Your task to perform on an android device: Go to display settings Image 0: 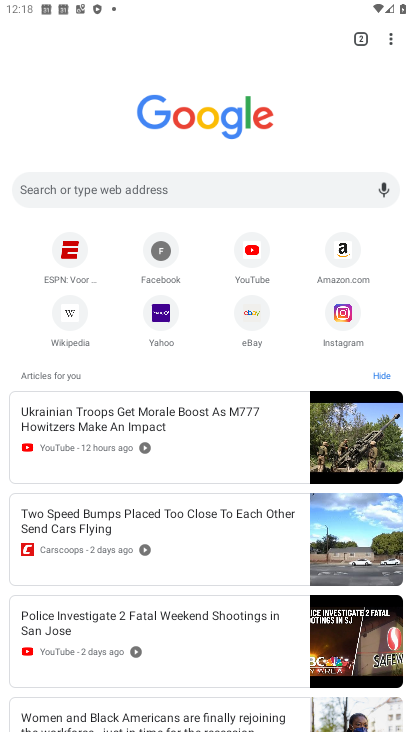
Step 0: press home button
Your task to perform on an android device: Go to display settings Image 1: 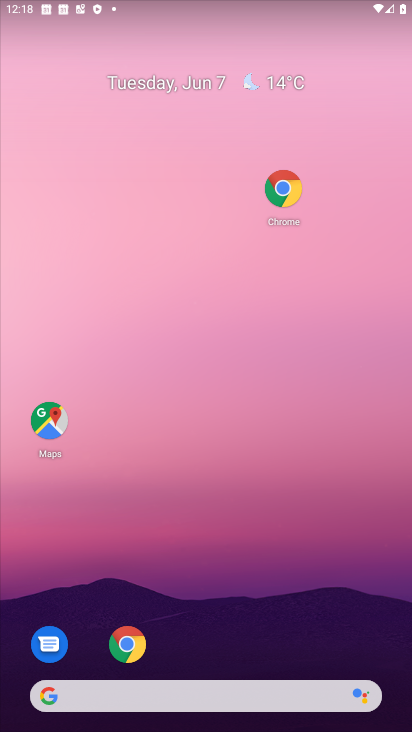
Step 1: drag from (273, 636) to (234, 160)
Your task to perform on an android device: Go to display settings Image 2: 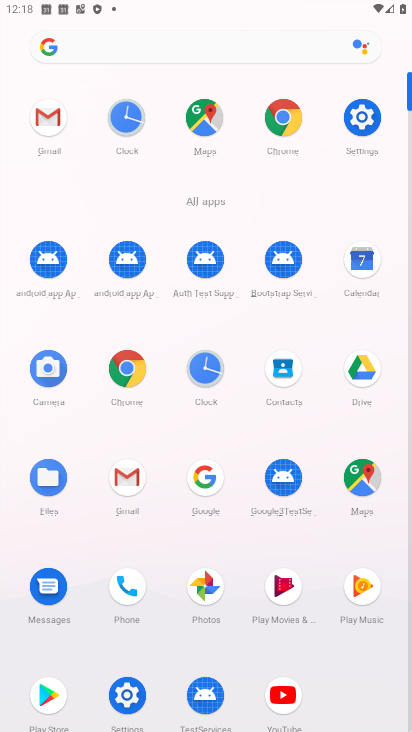
Step 2: click (354, 121)
Your task to perform on an android device: Go to display settings Image 3: 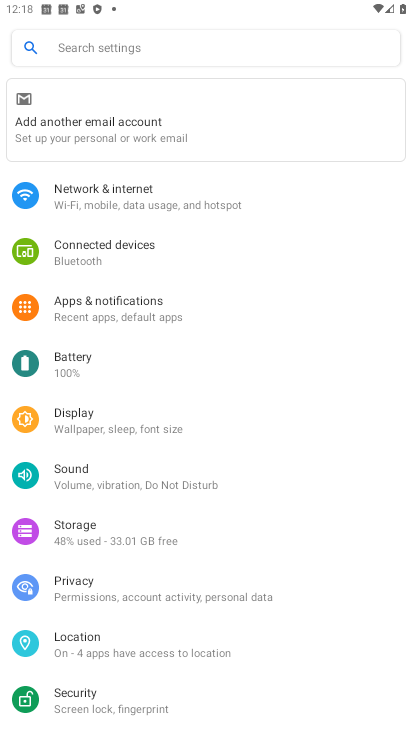
Step 3: drag from (191, 582) to (240, 184)
Your task to perform on an android device: Go to display settings Image 4: 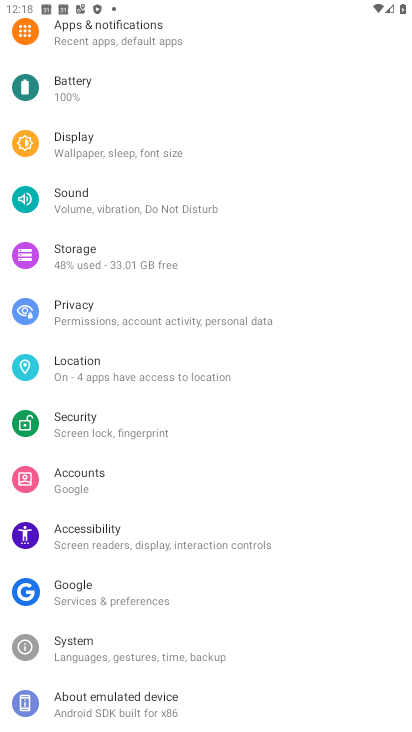
Step 4: drag from (263, 192) to (243, 551)
Your task to perform on an android device: Go to display settings Image 5: 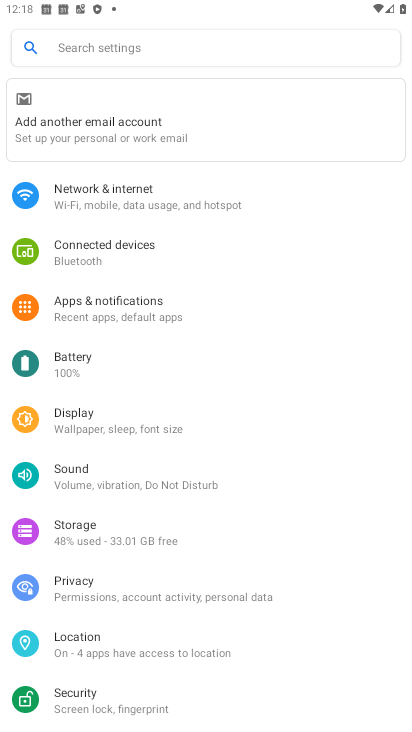
Step 5: click (114, 424)
Your task to perform on an android device: Go to display settings Image 6: 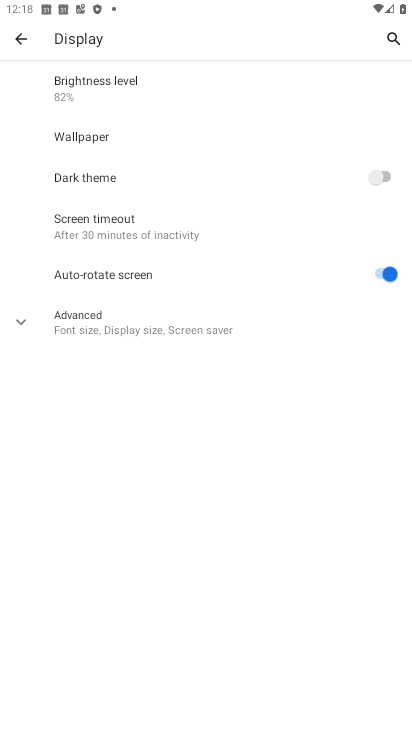
Step 6: task complete